Your task to perform on an android device: uninstall "The Home Depot" Image 0: 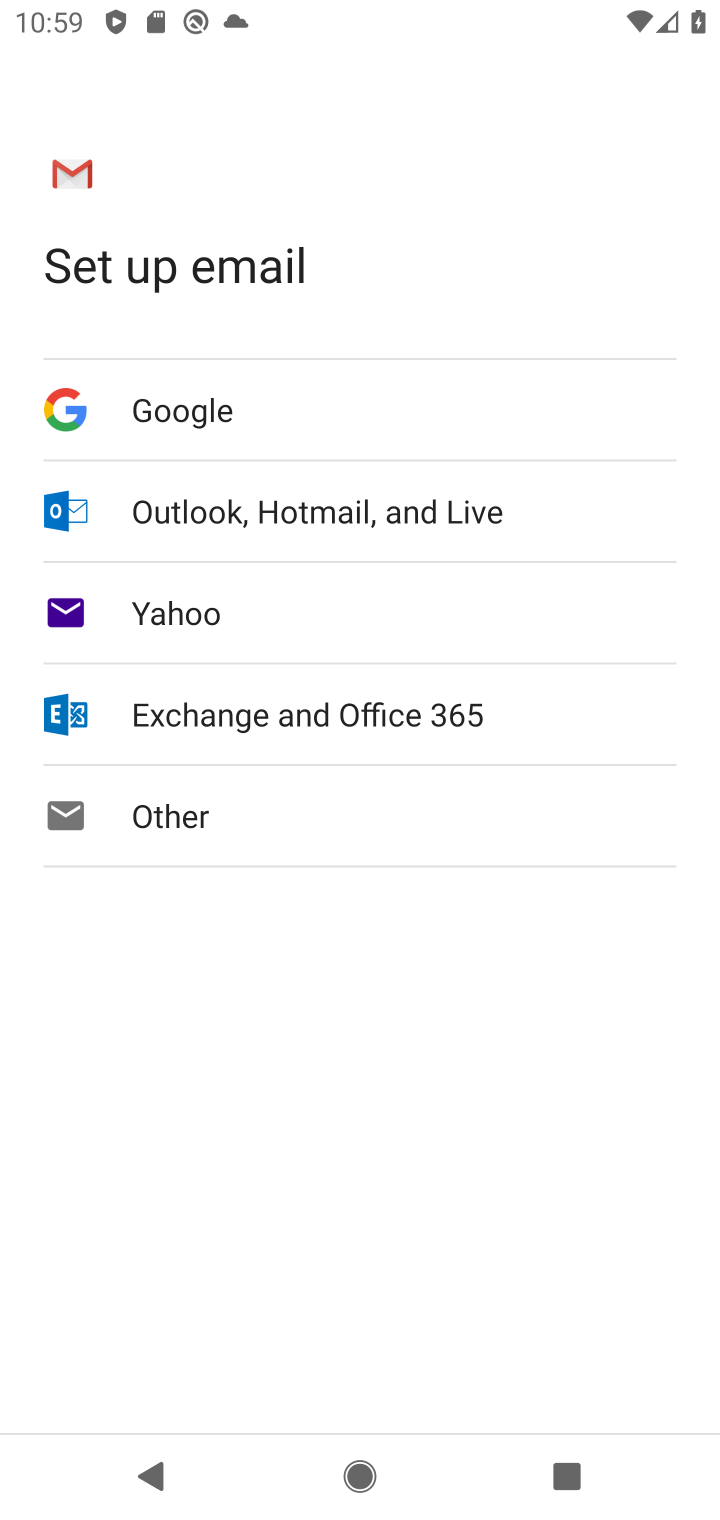
Step 0: press home button
Your task to perform on an android device: uninstall "The Home Depot" Image 1: 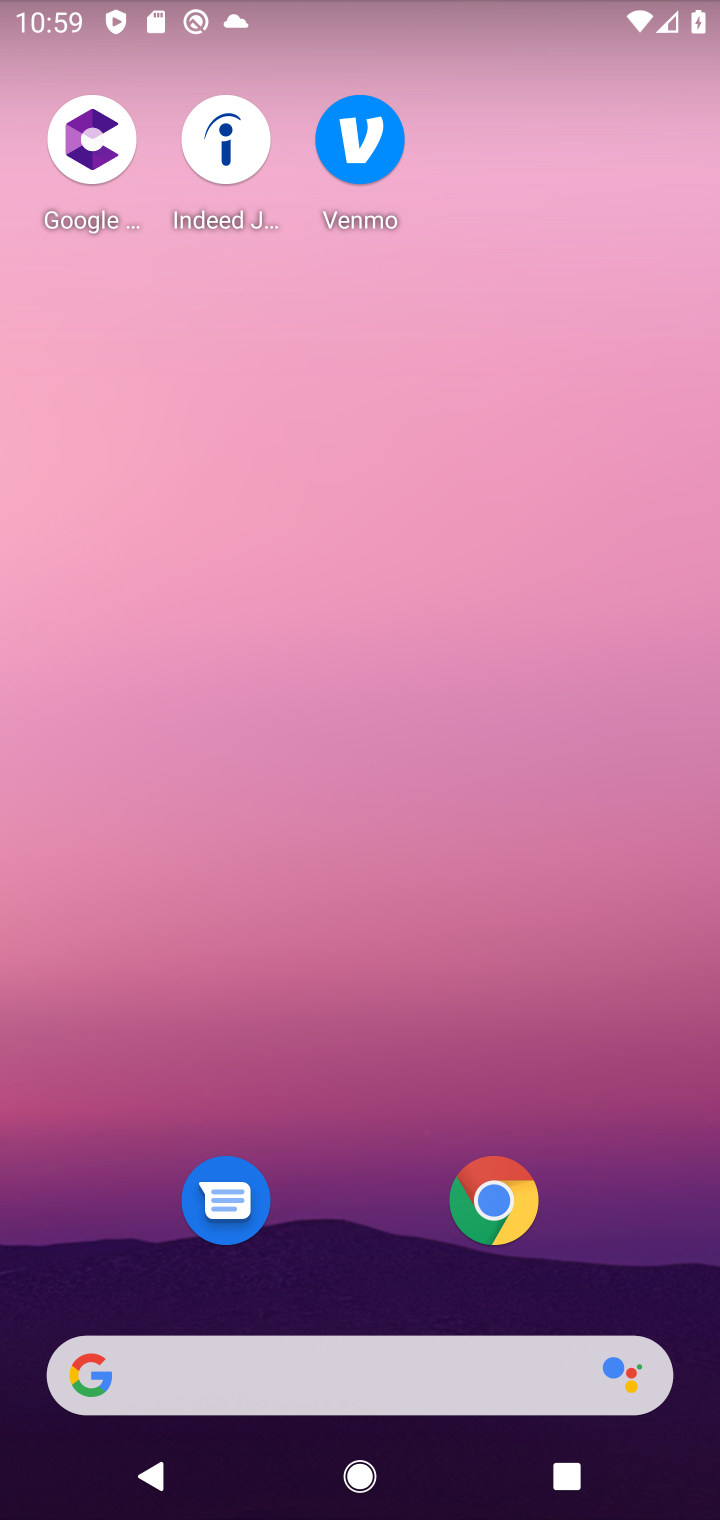
Step 1: drag from (344, 975) to (309, 236)
Your task to perform on an android device: uninstall "The Home Depot" Image 2: 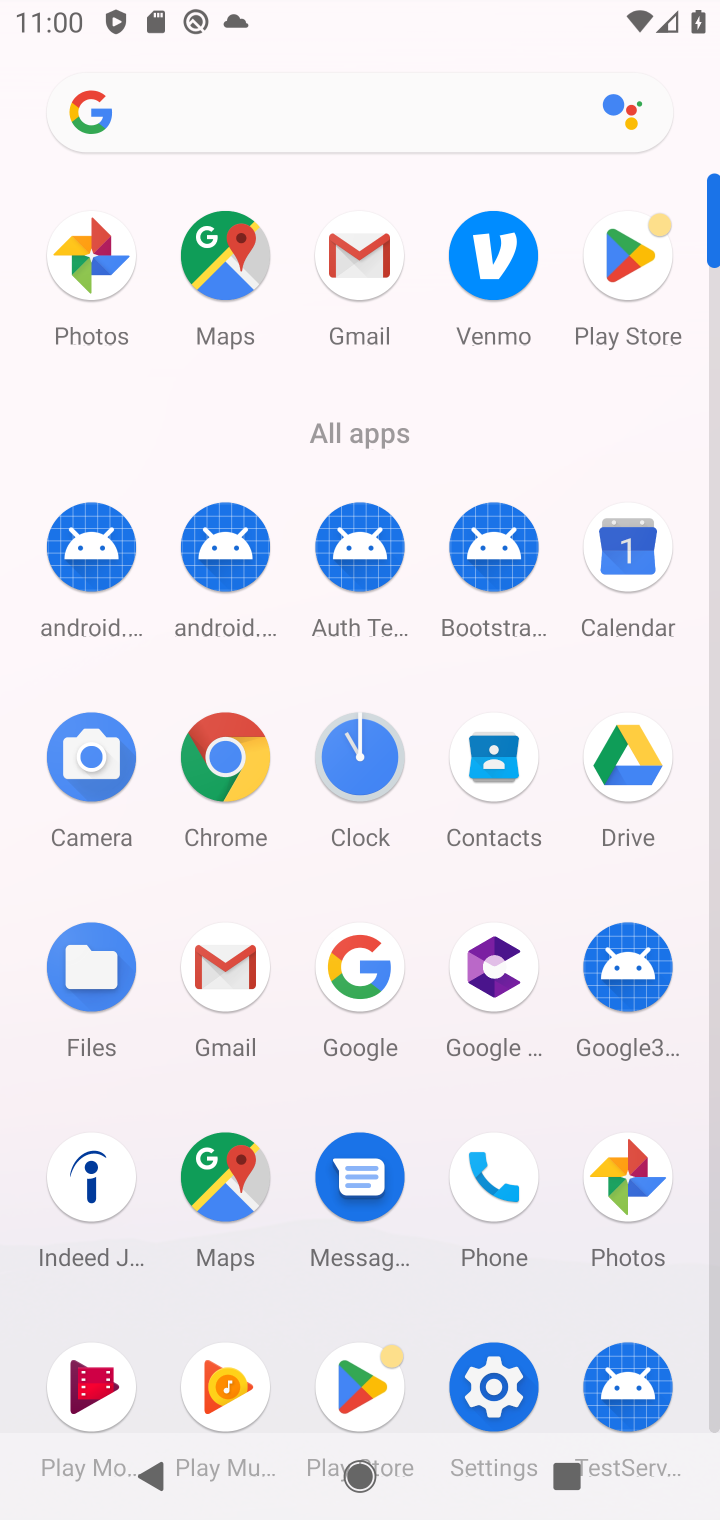
Step 2: click (618, 277)
Your task to perform on an android device: uninstall "The Home Depot" Image 3: 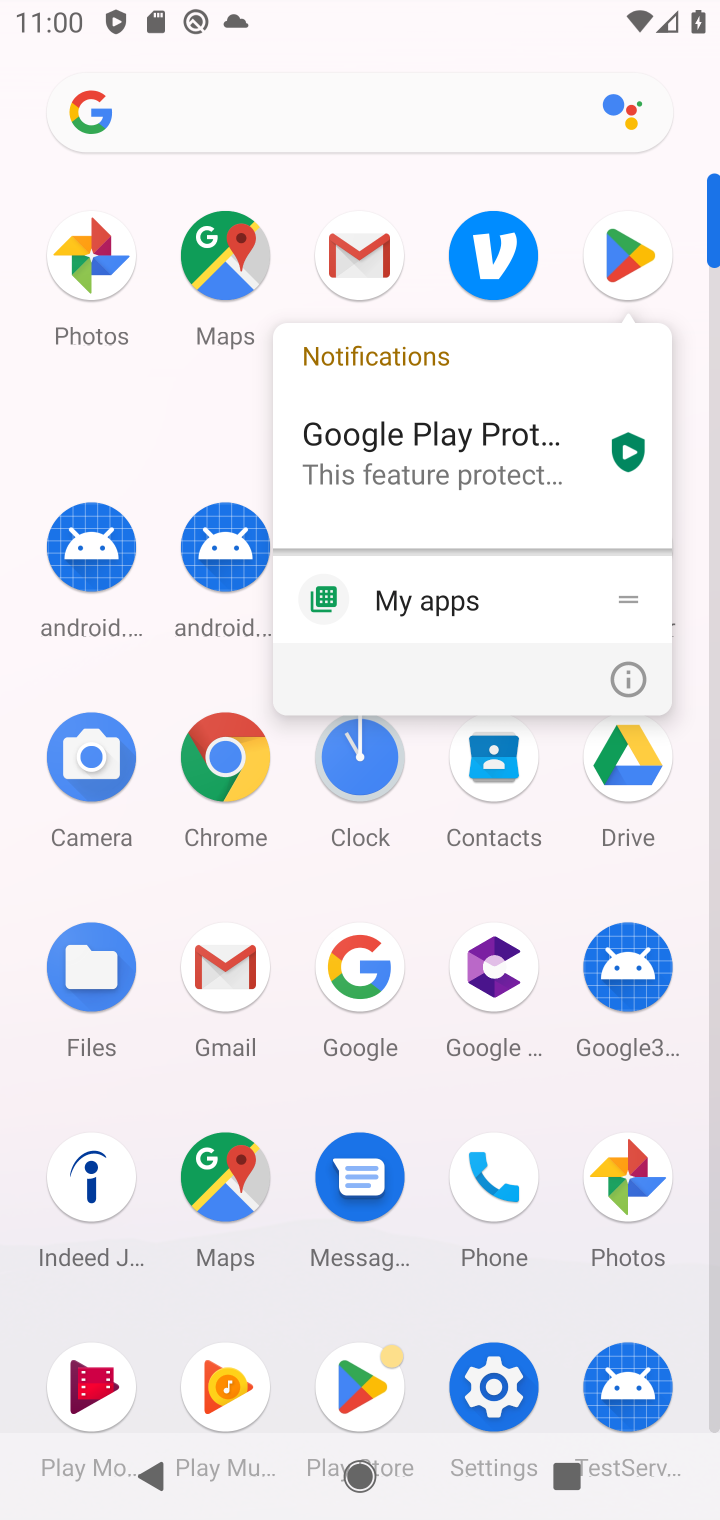
Step 3: click (628, 255)
Your task to perform on an android device: uninstall "The Home Depot" Image 4: 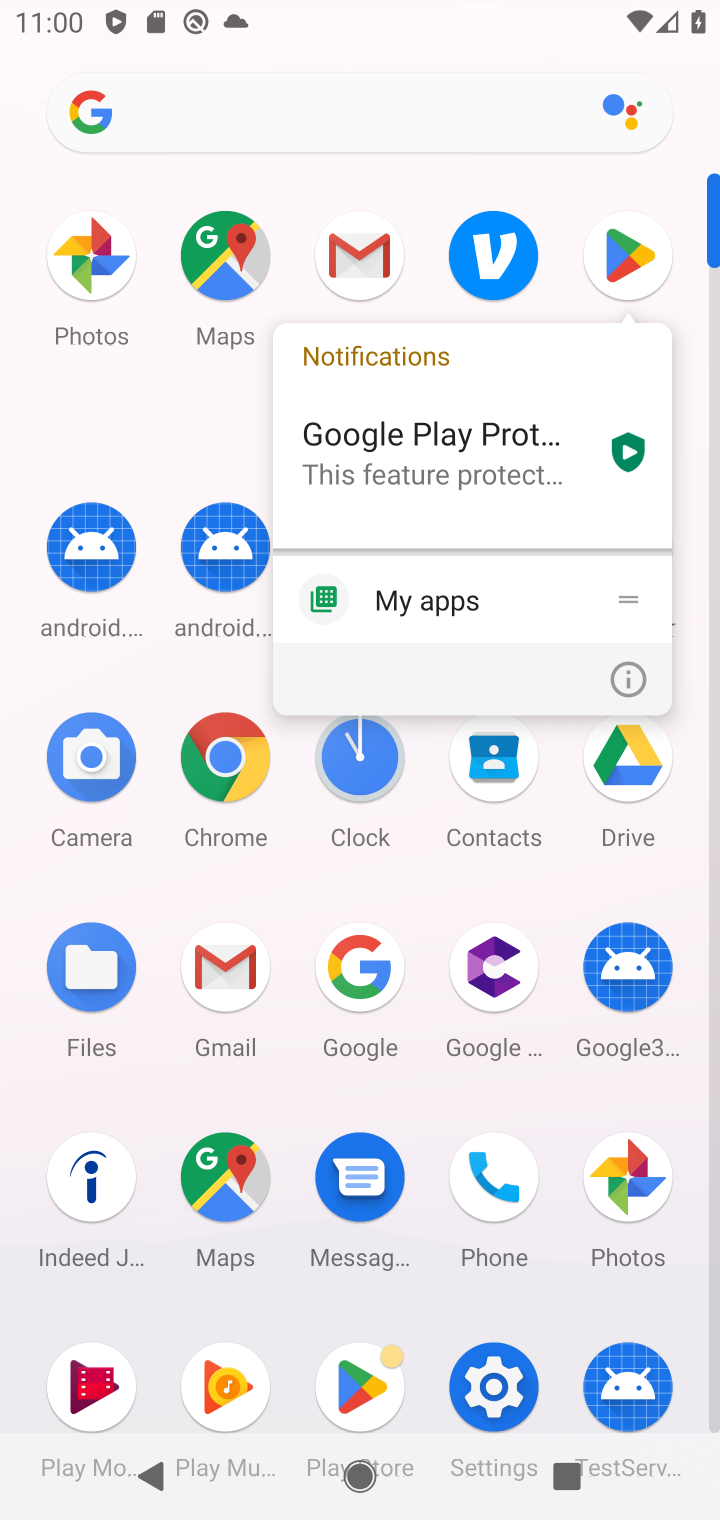
Step 4: click (628, 255)
Your task to perform on an android device: uninstall "The Home Depot" Image 5: 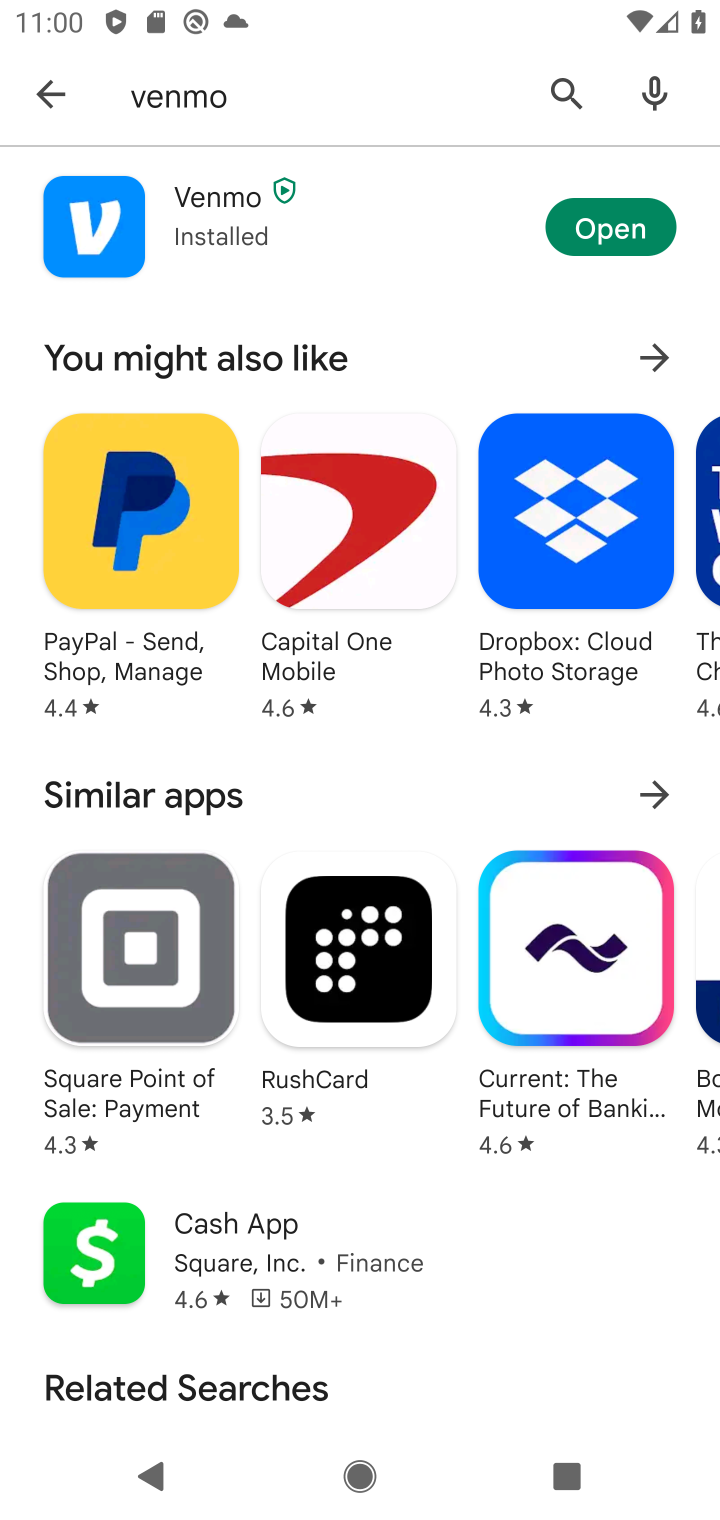
Step 5: click (562, 79)
Your task to perform on an android device: uninstall "The Home Depot" Image 6: 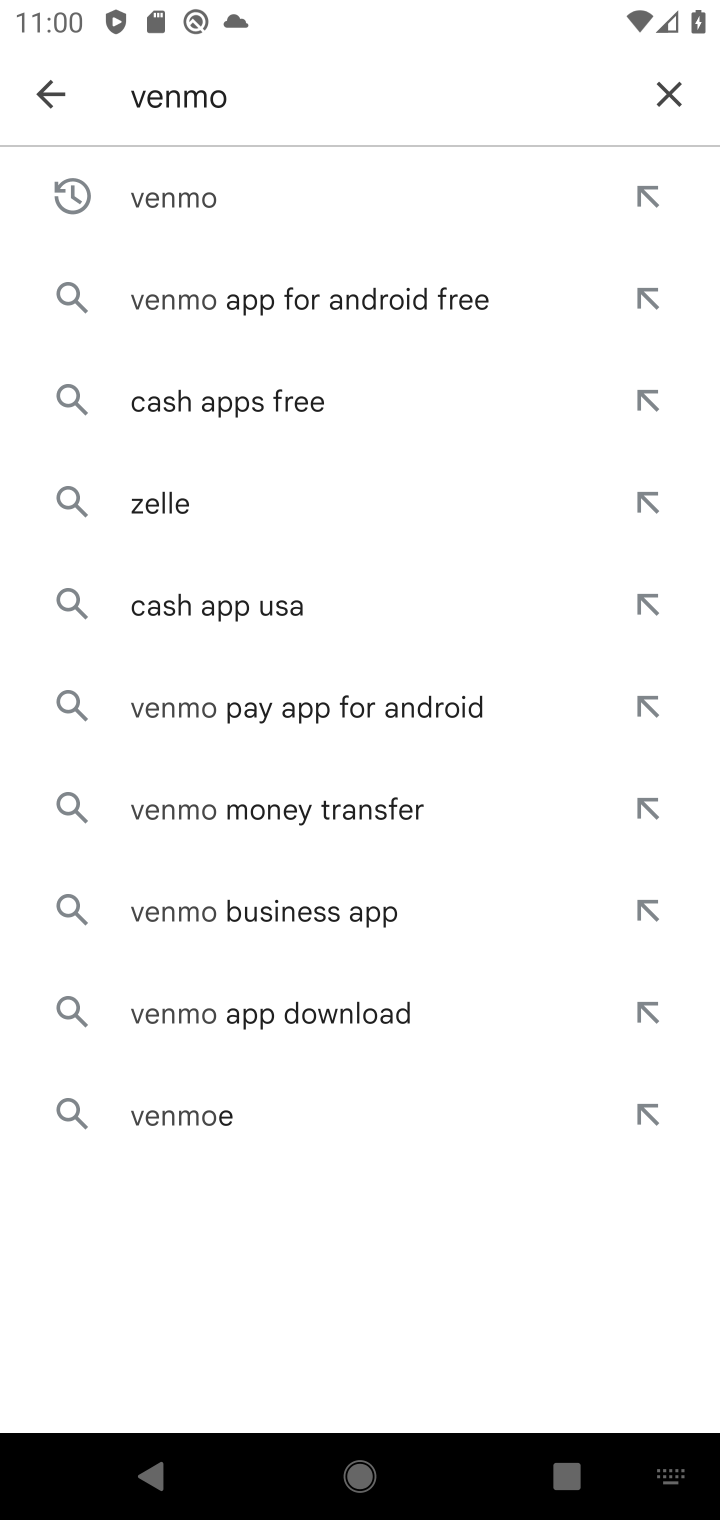
Step 6: click (657, 99)
Your task to perform on an android device: uninstall "The Home Depot" Image 7: 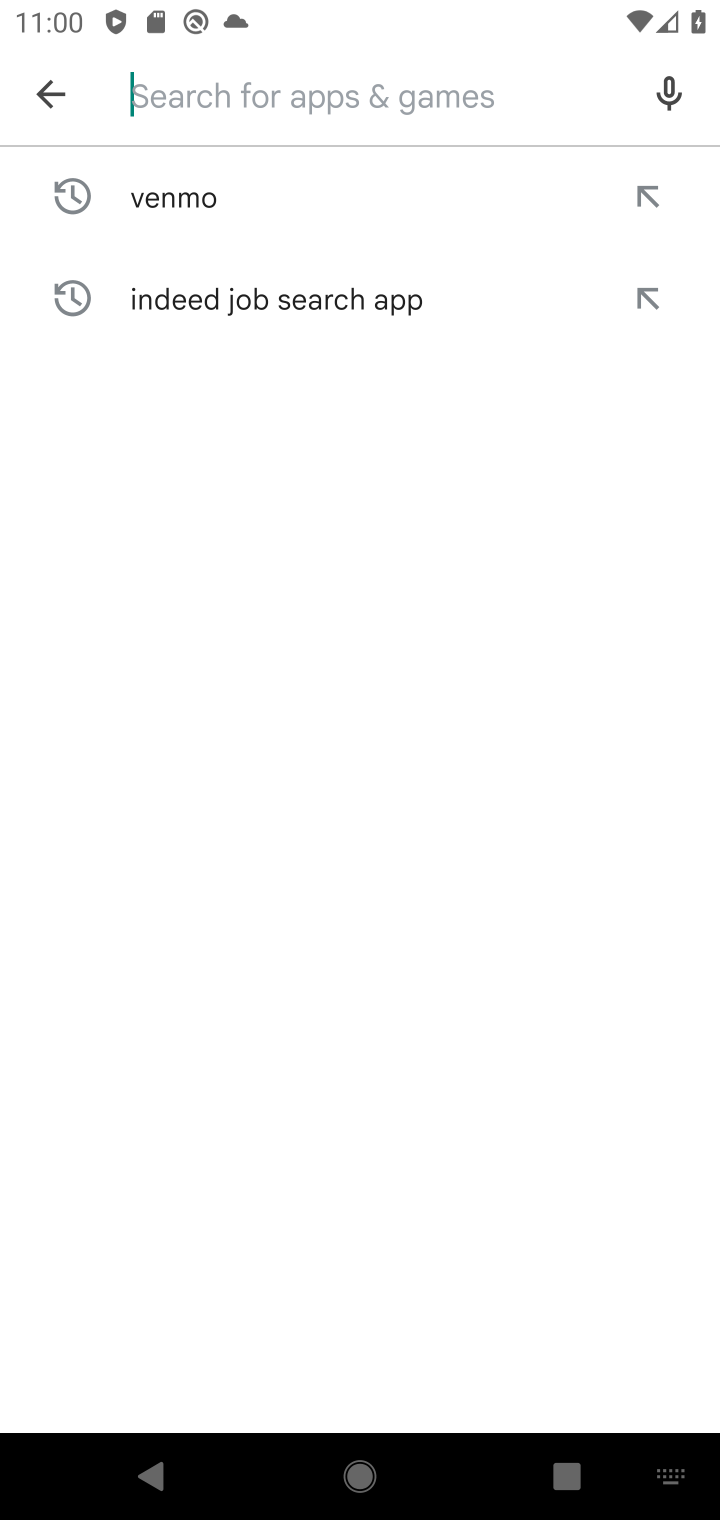
Step 7: type "The Home Depot"
Your task to perform on an android device: uninstall "The Home Depot" Image 8: 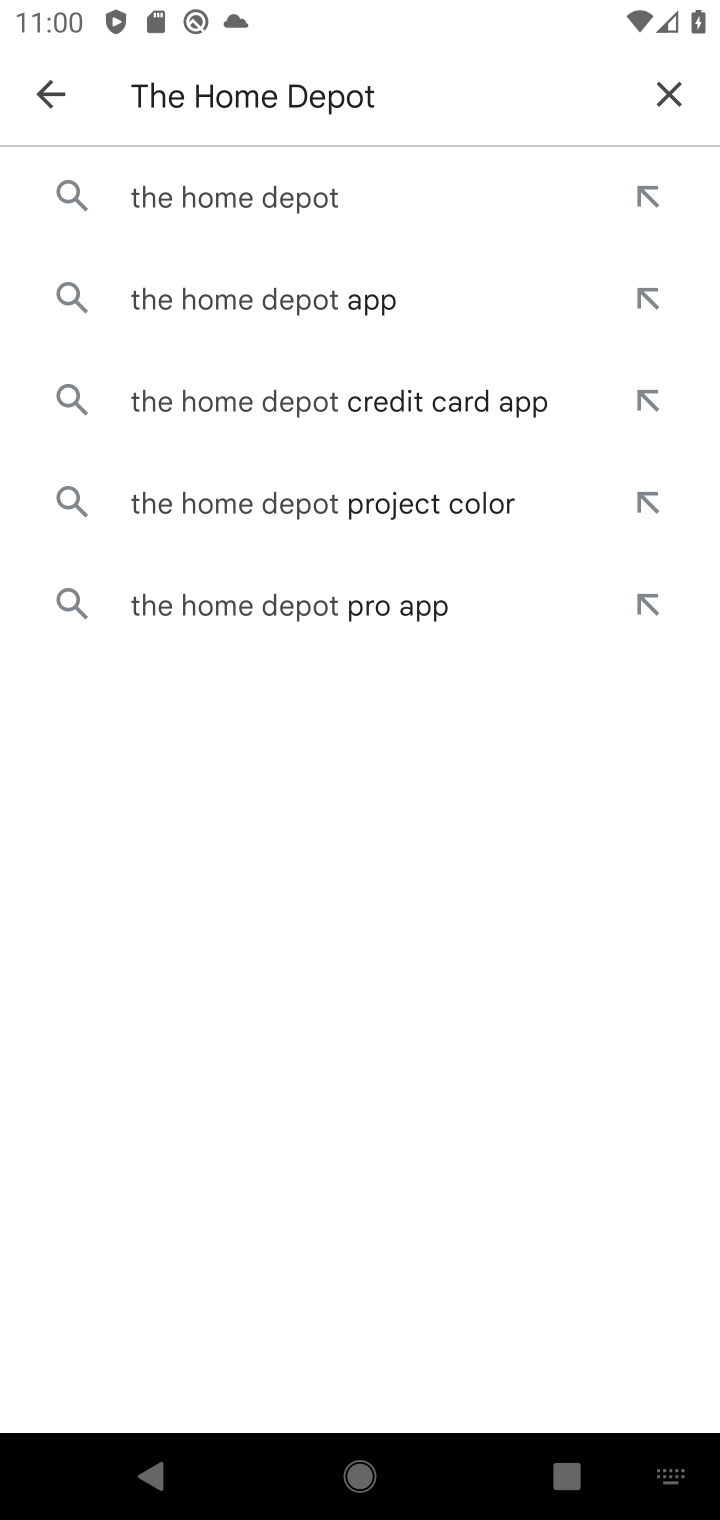
Step 8: click (230, 220)
Your task to perform on an android device: uninstall "The Home Depot" Image 9: 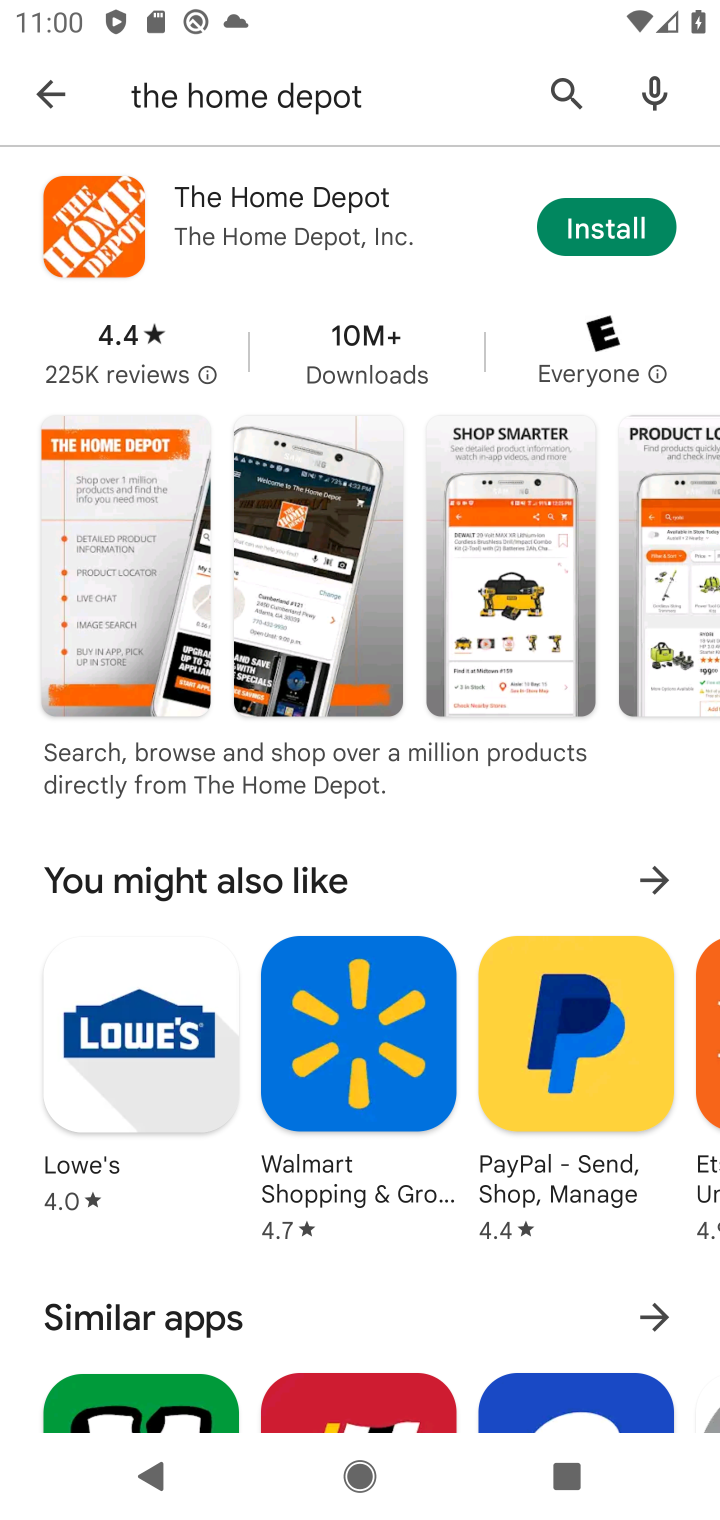
Step 9: task complete